Your task to perform on an android device: turn on airplane mode Image 0: 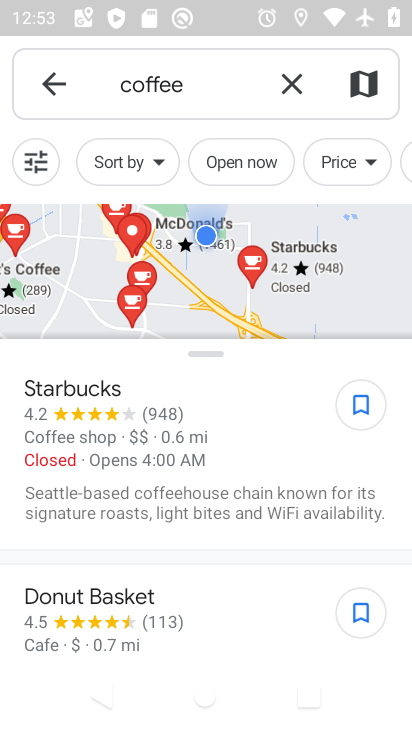
Step 0: click (292, 77)
Your task to perform on an android device: turn on airplane mode Image 1: 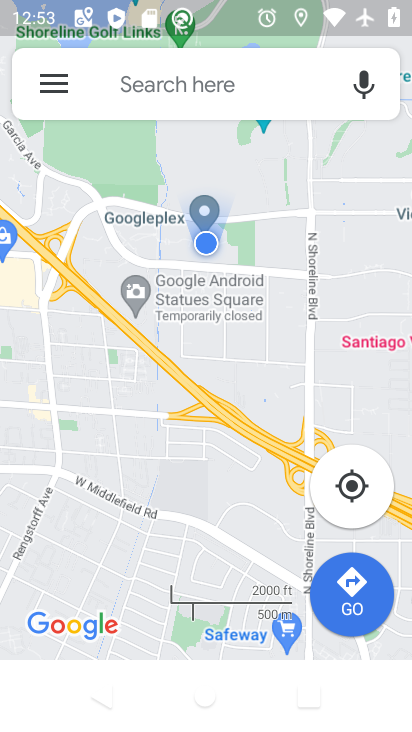
Step 1: press home button
Your task to perform on an android device: turn on airplane mode Image 2: 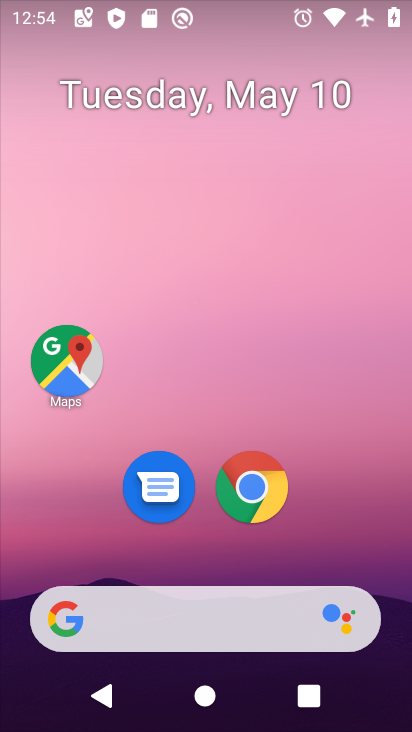
Step 2: drag from (357, 491) to (230, 49)
Your task to perform on an android device: turn on airplane mode Image 3: 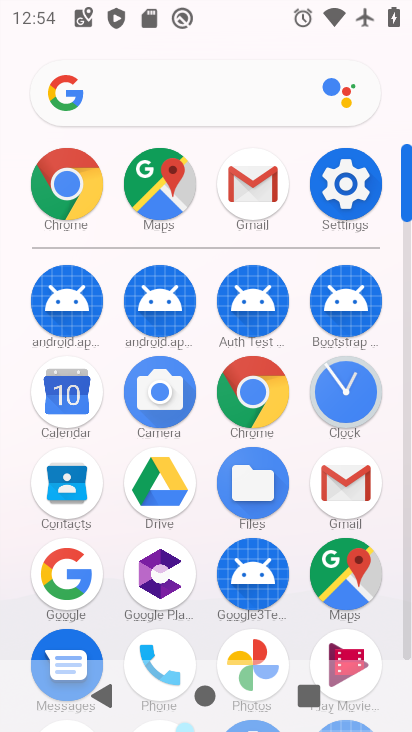
Step 3: click (346, 211)
Your task to perform on an android device: turn on airplane mode Image 4: 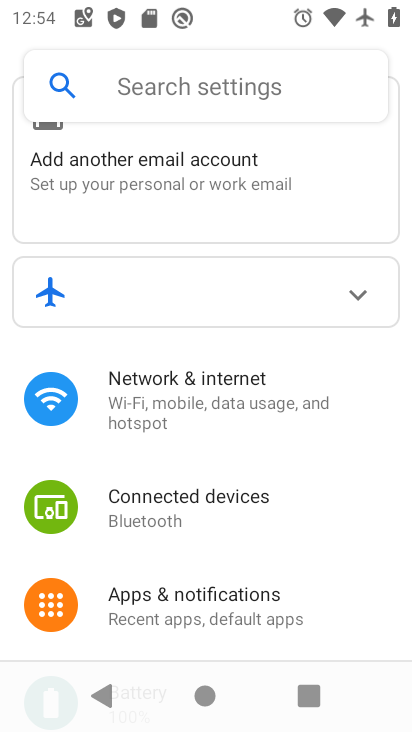
Step 4: task complete